Your task to perform on an android device: Add "lg ultragear" to the cart on newegg.com Image 0: 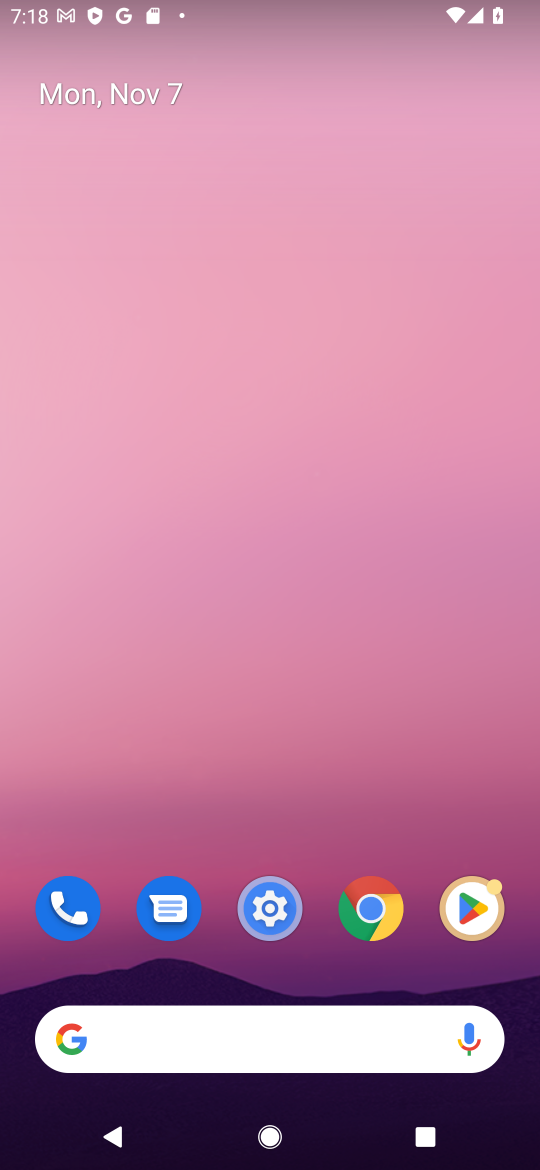
Step 0: click (316, 1014)
Your task to perform on an android device: Add "lg ultragear" to the cart on newegg.com Image 1: 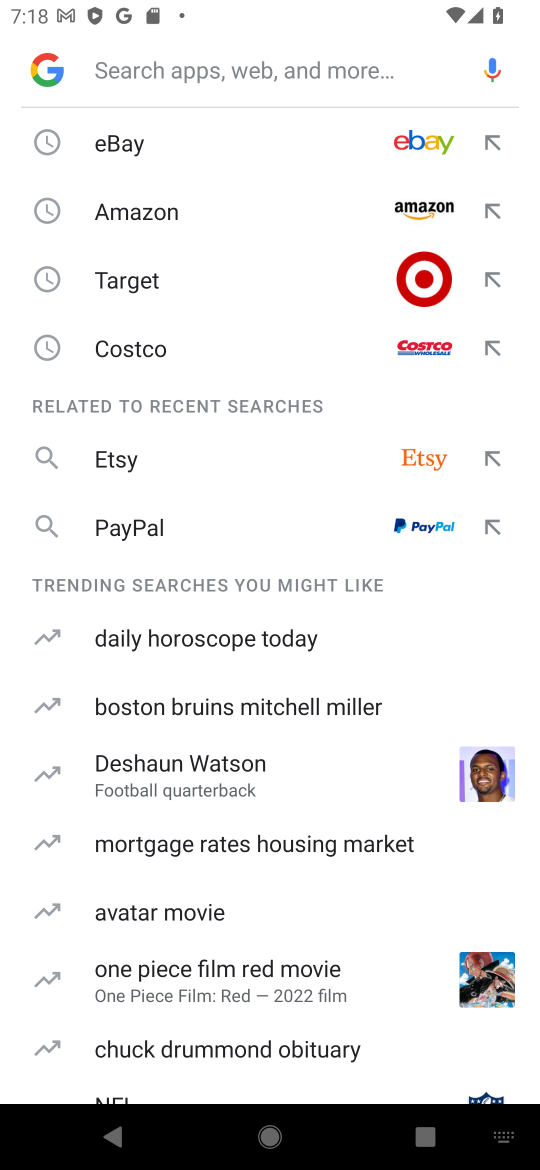
Step 1: type "newegg"
Your task to perform on an android device: Add "lg ultragear" to the cart on newegg.com Image 2: 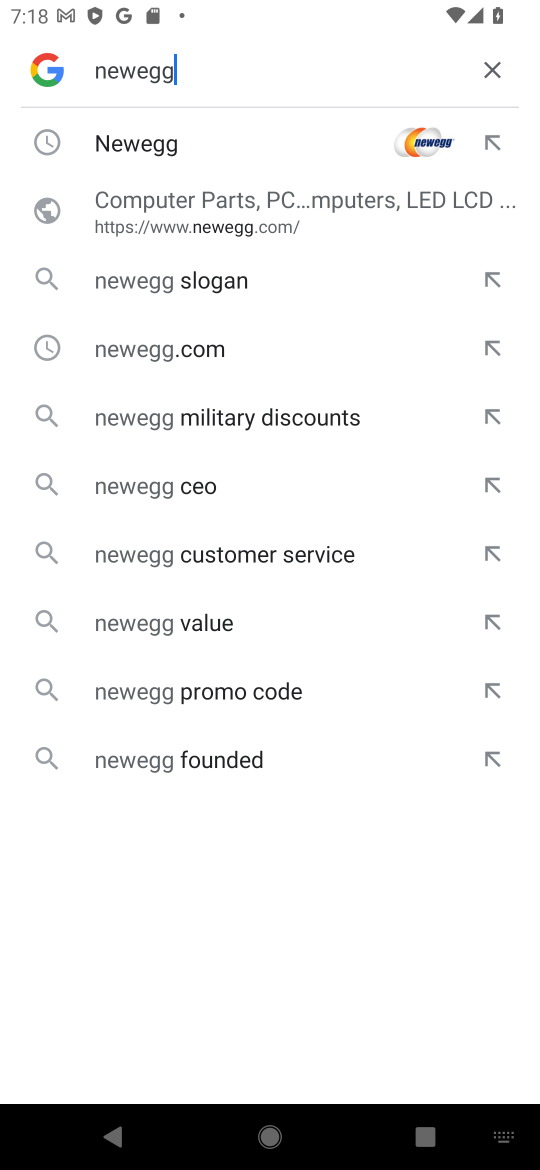
Step 2: click (241, 152)
Your task to perform on an android device: Add "lg ultragear" to the cart on newegg.com Image 3: 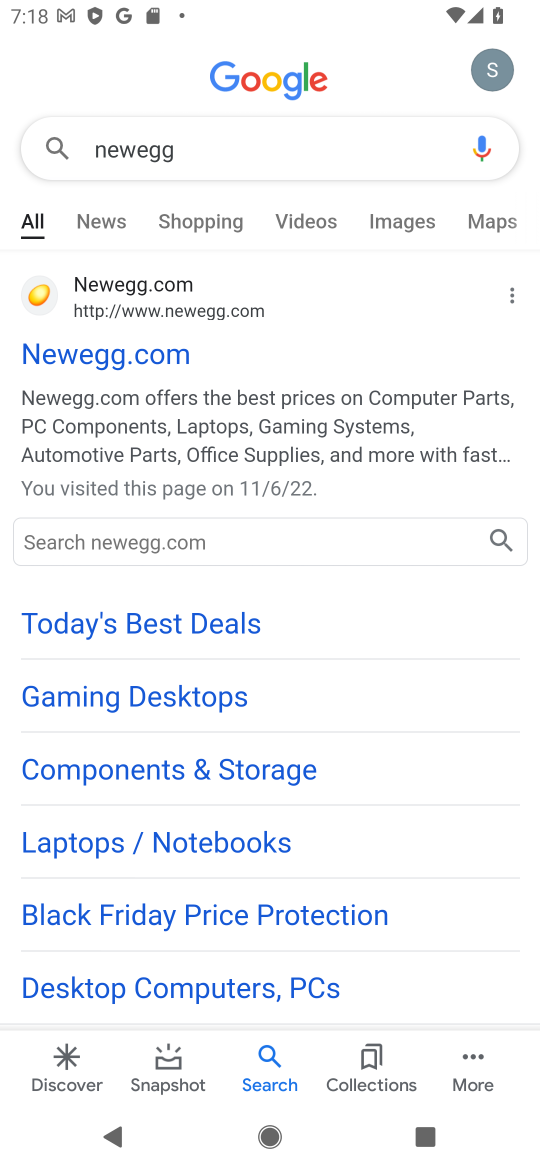
Step 3: click (133, 371)
Your task to perform on an android device: Add "lg ultragear" to the cart on newegg.com Image 4: 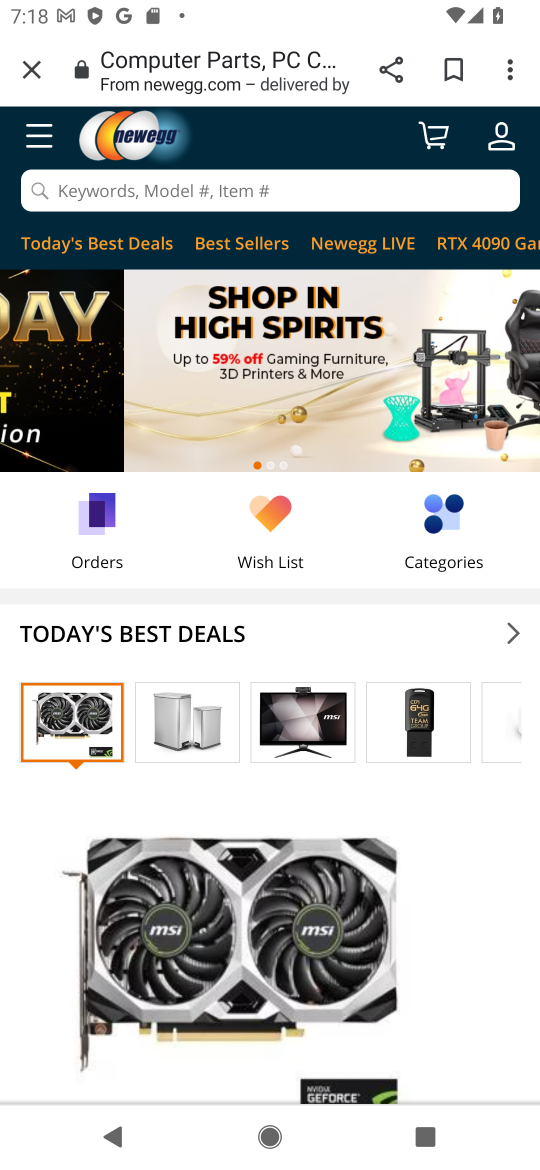
Step 4: task complete